Your task to perform on an android device: turn on priority inbox in the gmail app Image 0: 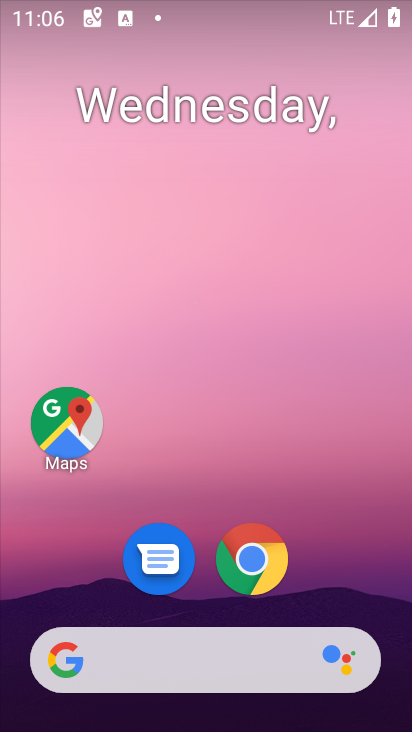
Step 0: drag from (197, 652) to (233, 95)
Your task to perform on an android device: turn on priority inbox in the gmail app Image 1: 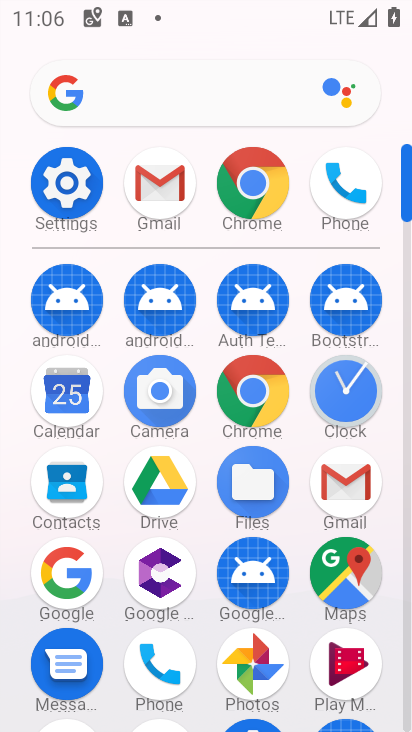
Step 1: click (338, 507)
Your task to perform on an android device: turn on priority inbox in the gmail app Image 2: 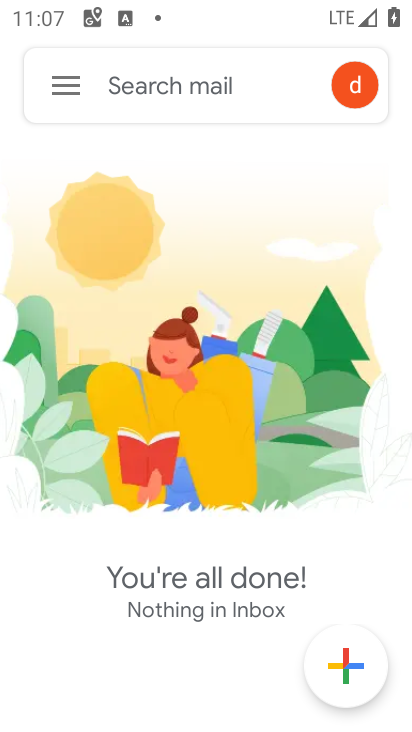
Step 2: click (62, 93)
Your task to perform on an android device: turn on priority inbox in the gmail app Image 3: 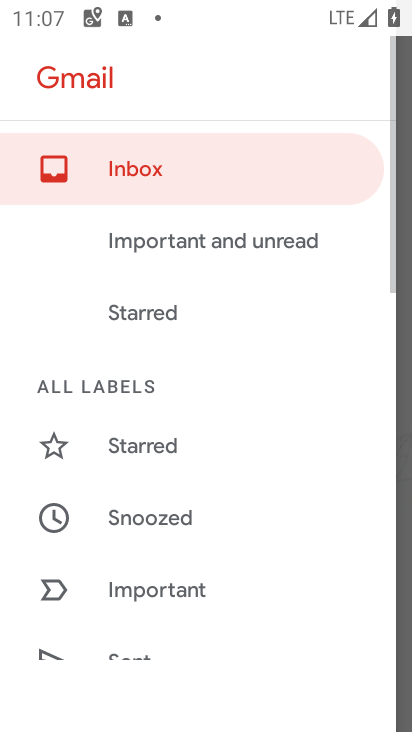
Step 3: drag from (132, 567) to (194, 207)
Your task to perform on an android device: turn on priority inbox in the gmail app Image 4: 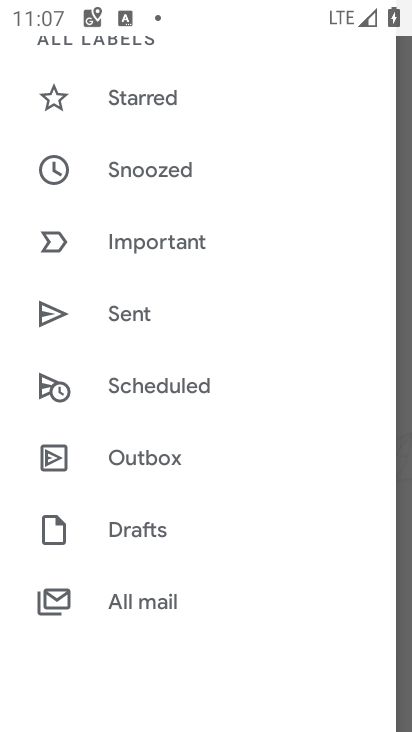
Step 4: drag from (153, 557) to (197, 305)
Your task to perform on an android device: turn on priority inbox in the gmail app Image 5: 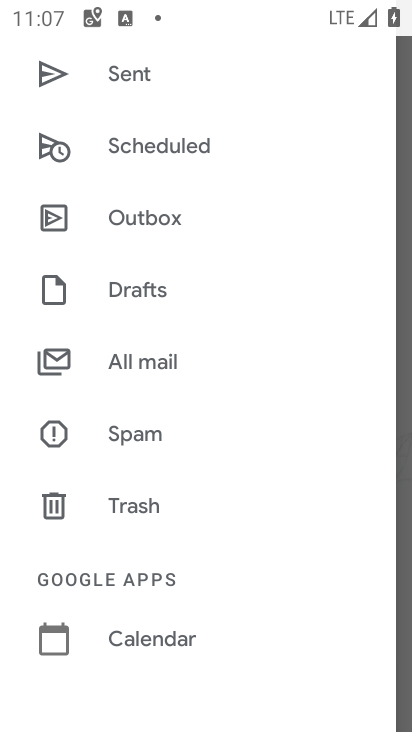
Step 5: drag from (163, 512) to (206, 216)
Your task to perform on an android device: turn on priority inbox in the gmail app Image 6: 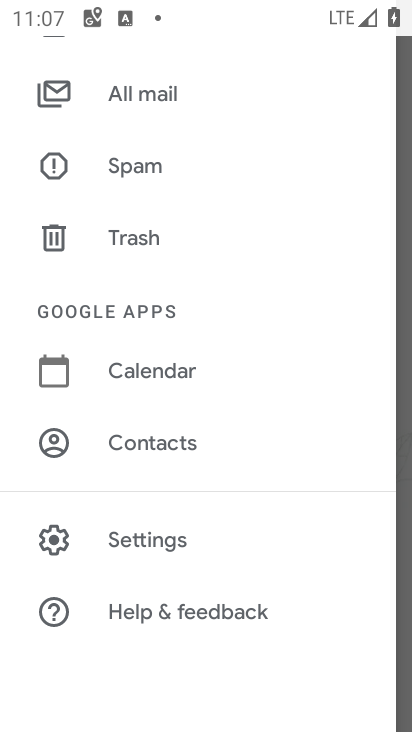
Step 6: click (163, 546)
Your task to perform on an android device: turn on priority inbox in the gmail app Image 7: 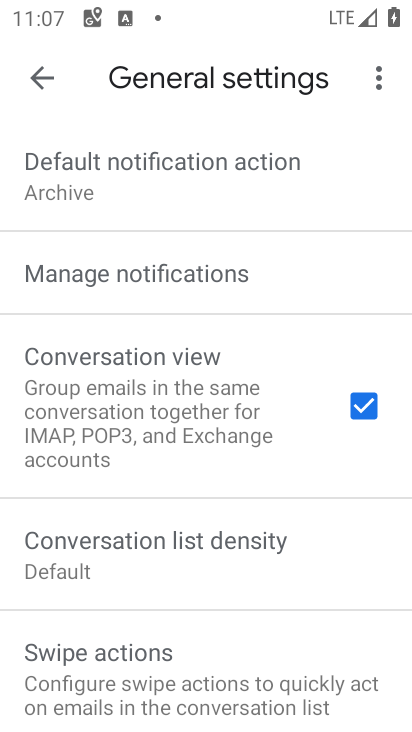
Step 7: click (40, 85)
Your task to perform on an android device: turn on priority inbox in the gmail app Image 8: 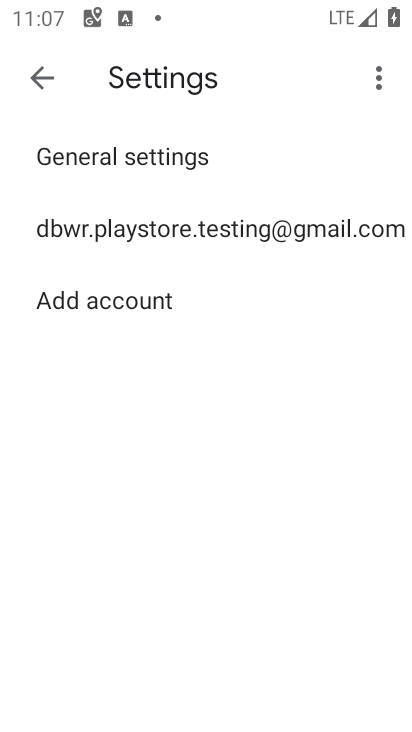
Step 8: click (179, 155)
Your task to perform on an android device: turn on priority inbox in the gmail app Image 9: 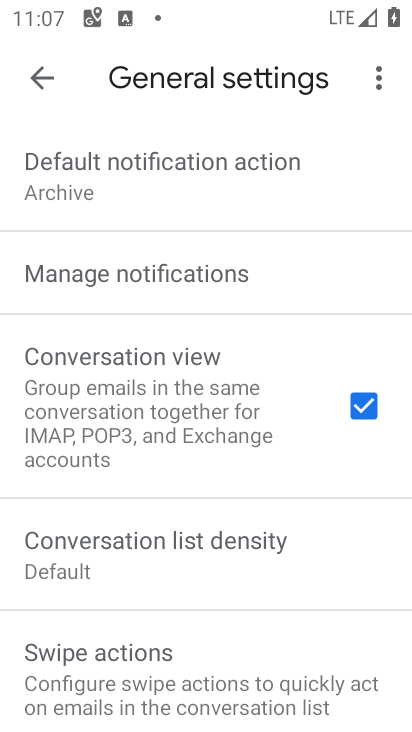
Step 9: click (37, 79)
Your task to perform on an android device: turn on priority inbox in the gmail app Image 10: 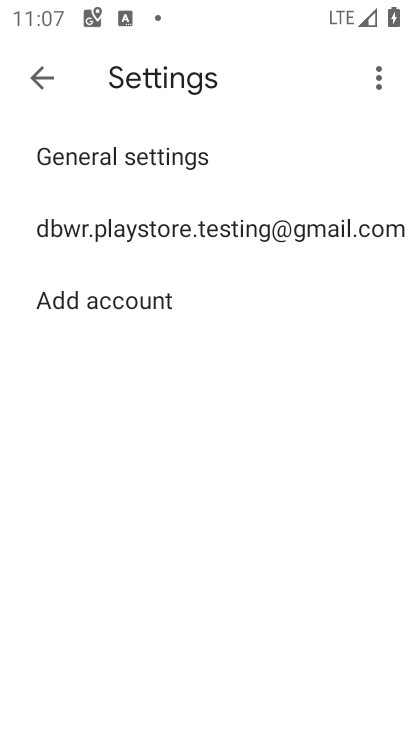
Step 10: click (121, 231)
Your task to perform on an android device: turn on priority inbox in the gmail app Image 11: 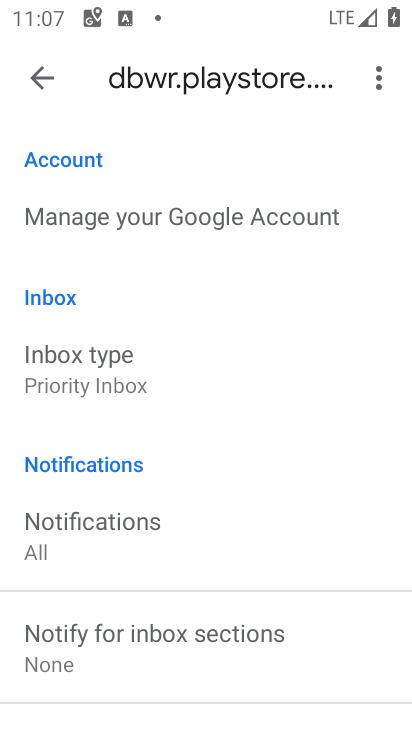
Step 11: click (124, 372)
Your task to perform on an android device: turn on priority inbox in the gmail app Image 12: 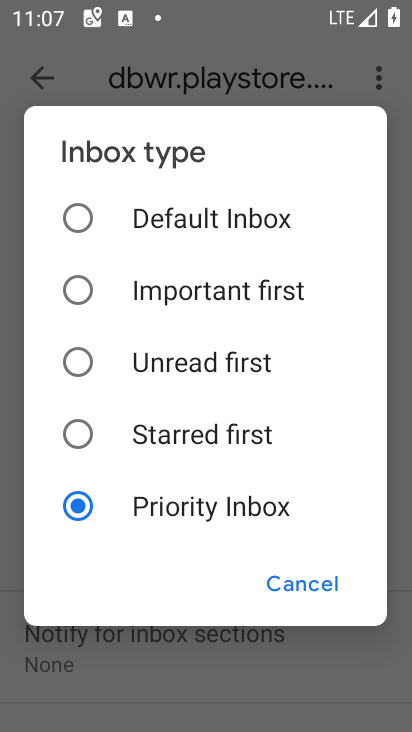
Step 12: task complete